Your task to perform on an android device: Go to Wikipedia Image 0: 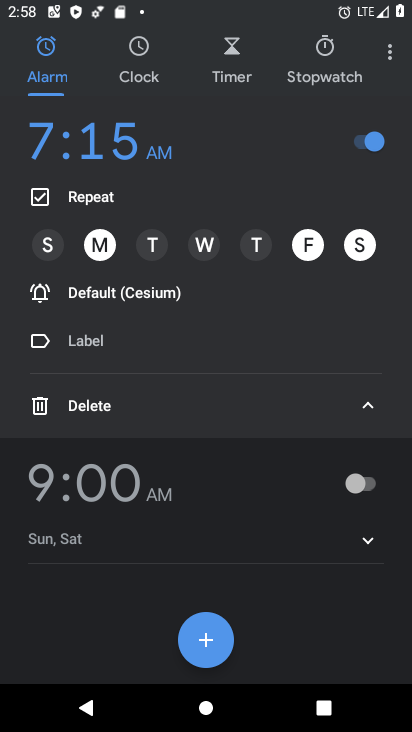
Step 0: press home button
Your task to perform on an android device: Go to Wikipedia Image 1: 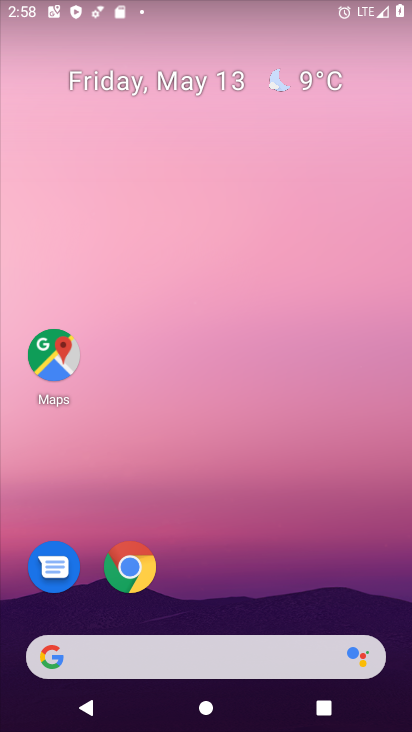
Step 1: click (132, 561)
Your task to perform on an android device: Go to Wikipedia Image 2: 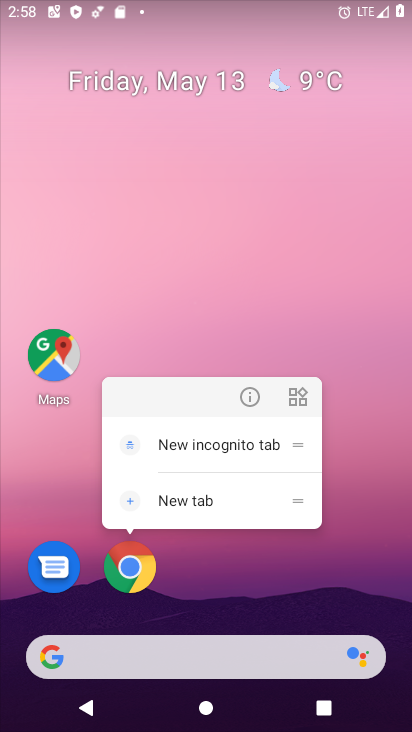
Step 2: click (122, 558)
Your task to perform on an android device: Go to Wikipedia Image 3: 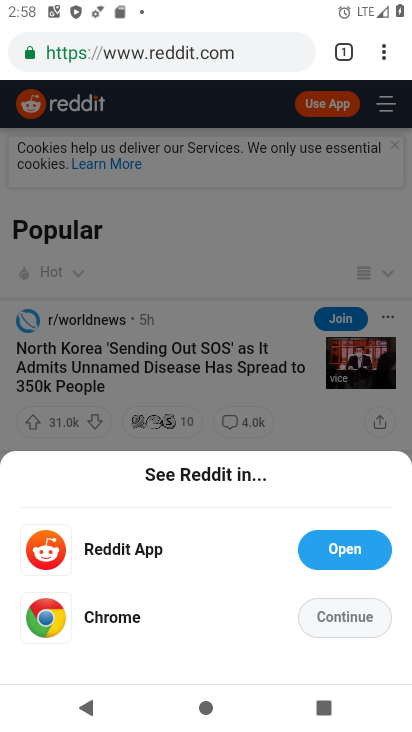
Step 3: click (201, 51)
Your task to perform on an android device: Go to Wikipedia Image 4: 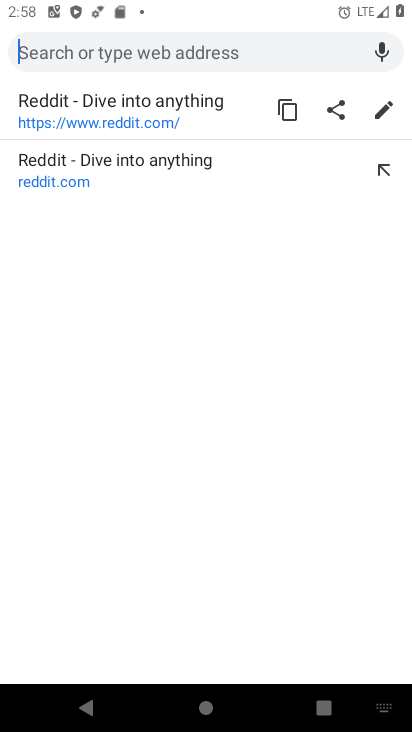
Step 4: type "wikipedia"
Your task to perform on an android device: Go to Wikipedia Image 5: 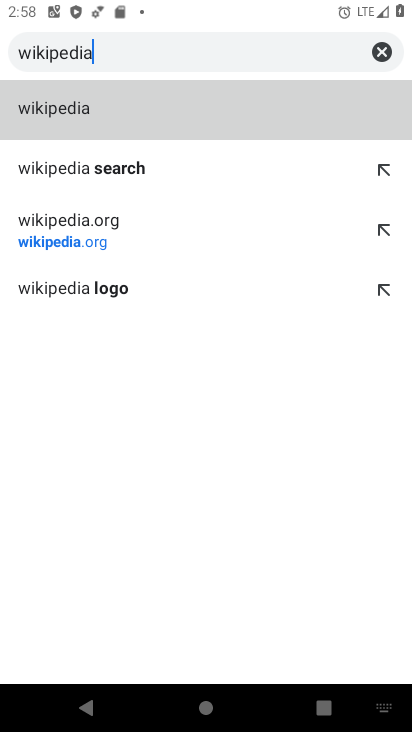
Step 5: click (45, 96)
Your task to perform on an android device: Go to Wikipedia Image 6: 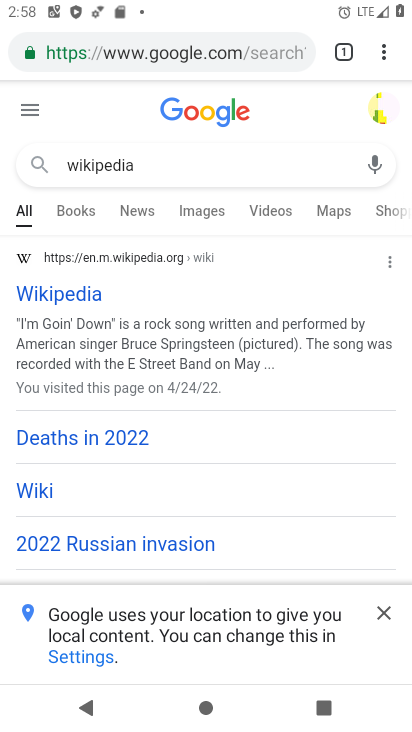
Step 6: task complete